Your task to perform on an android device: toggle notifications settings in the gmail app Image 0: 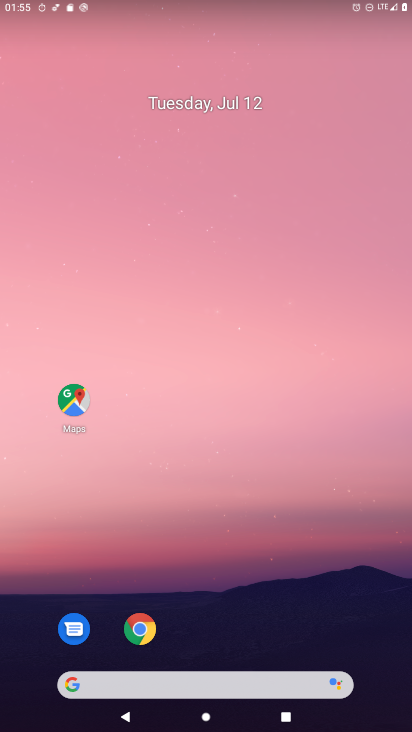
Step 0: press home button
Your task to perform on an android device: toggle notifications settings in the gmail app Image 1: 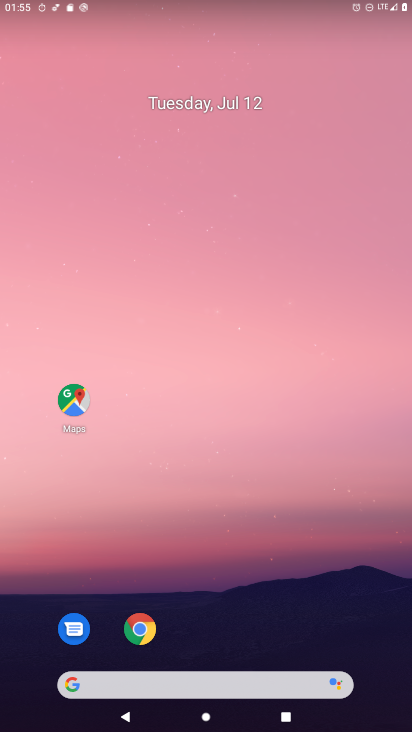
Step 1: drag from (114, 561) to (294, 118)
Your task to perform on an android device: toggle notifications settings in the gmail app Image 2: 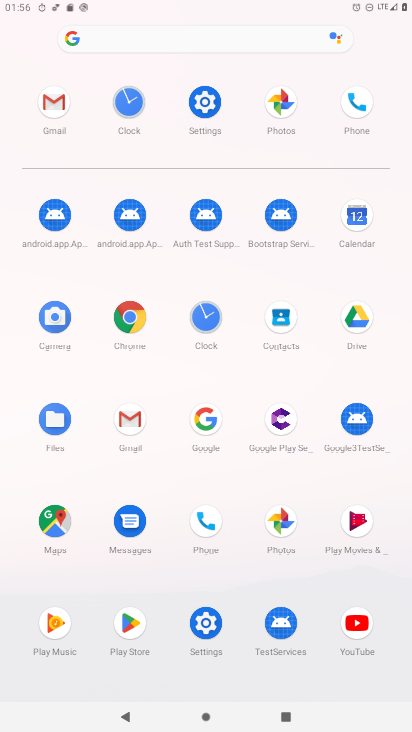
Step 2: click (139, 428)
Your task to perform on an android device: toggle notifications settings in the gmail app Image 3: 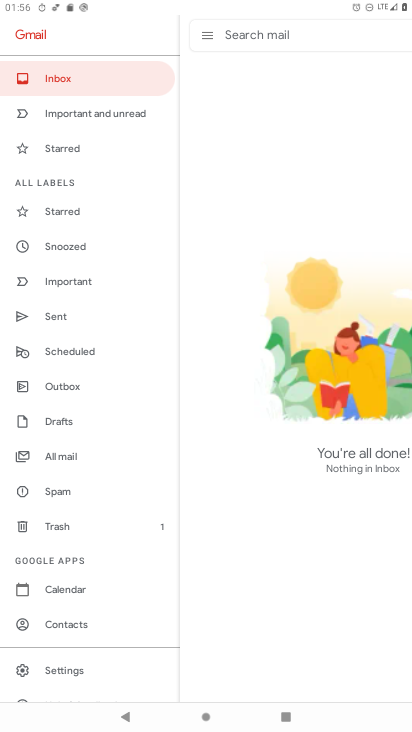
Step 3: click (80, 667)
Your task to perform on an android device: toggle notifications settings in the gmail app Image 4: 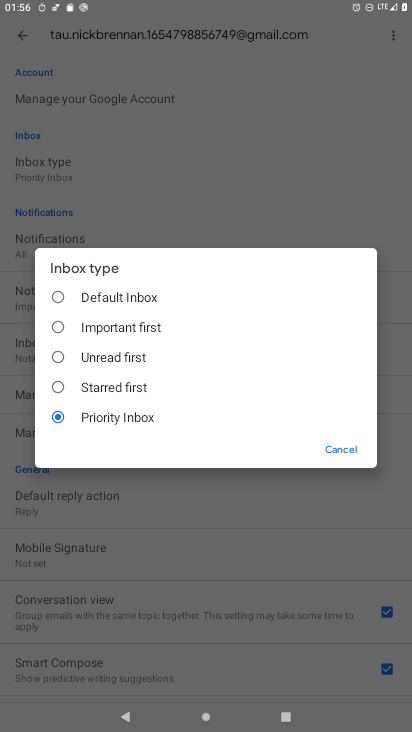
Step 4: click (354, 449)
Your task to perform on an android device: toggle notifications settings in the gmail app Image 5: 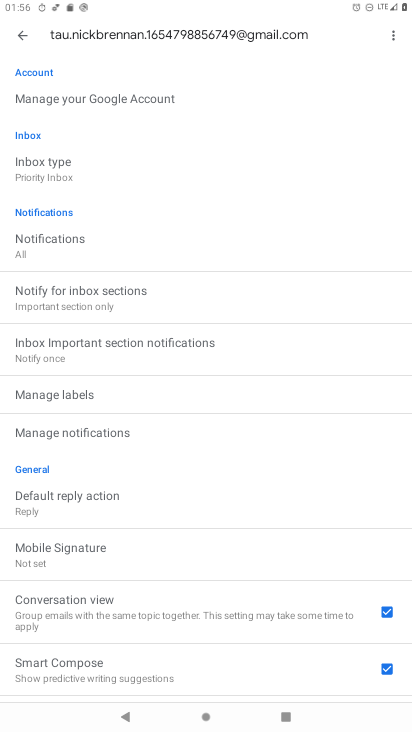
Step 5: click (49, 238)
Your task to perform on an android device: toggle notifications settings in the gmail app Image 6: 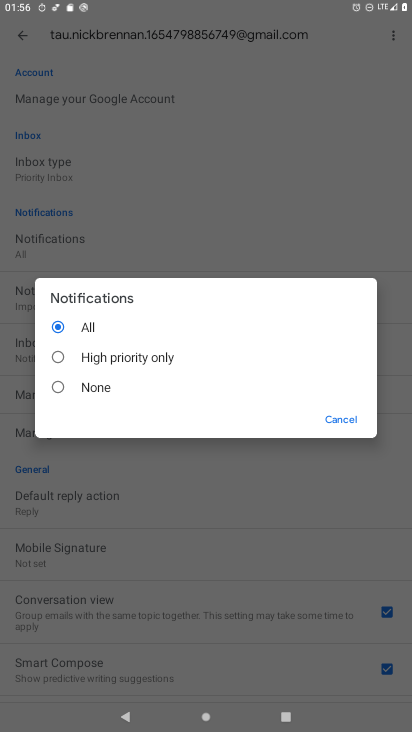
Step 6: click (349, 415)
Your task to perform on an android device: toggle notifications settings in the gmail app Image 7: 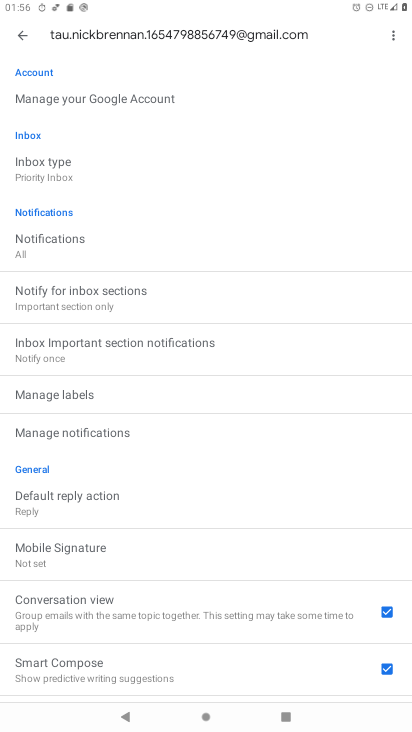
Step 7: task complete